Your task to perform on an android device: Set the phone to "Do not disturb". Image 0: 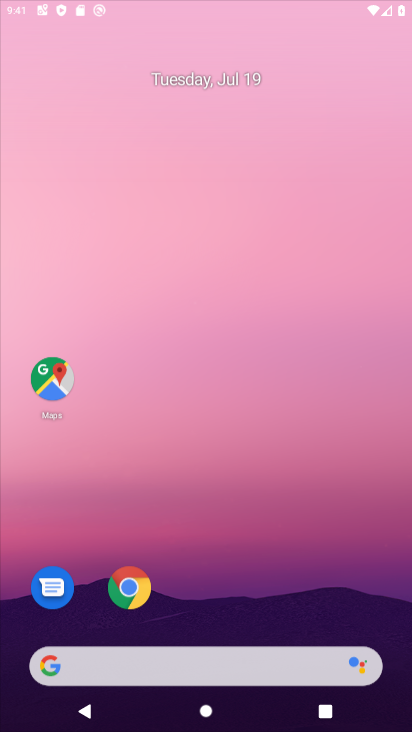
Step 0: press back button
Your task to perform on an android device: Set the phone to "Do not disturb". Image 1: 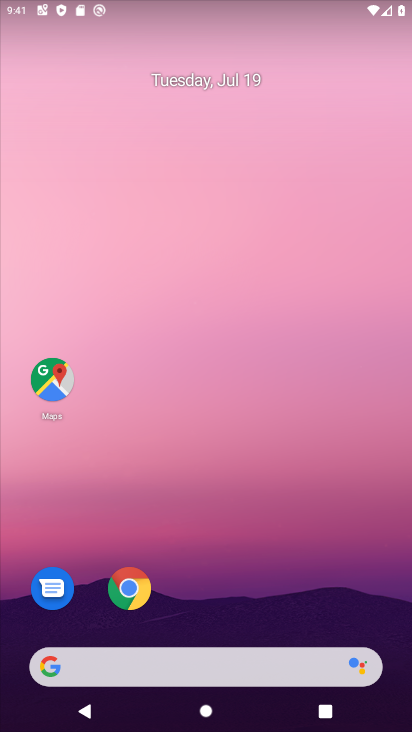
Step 1: drag from (228, 555) to (228, 145)
Your task to perform on an android device: Set the phone to "Do not disturb". Image 2: 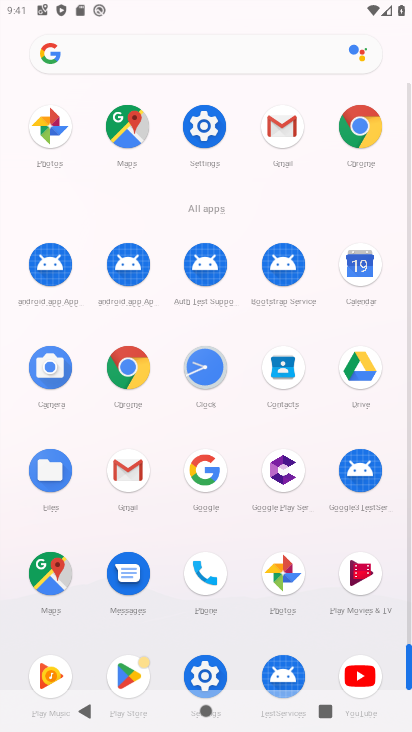
Step 2: click (200, 140)
Your task to perform on an android device: Set the phone to "Do not disturb". Image 3: 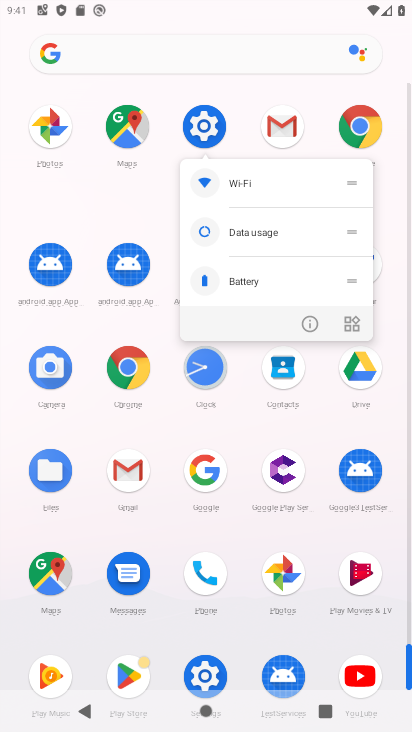
Step 3: click (196, 133)
Your task to perform on an android device: Set the phone to "Do not disturb". Image 4: 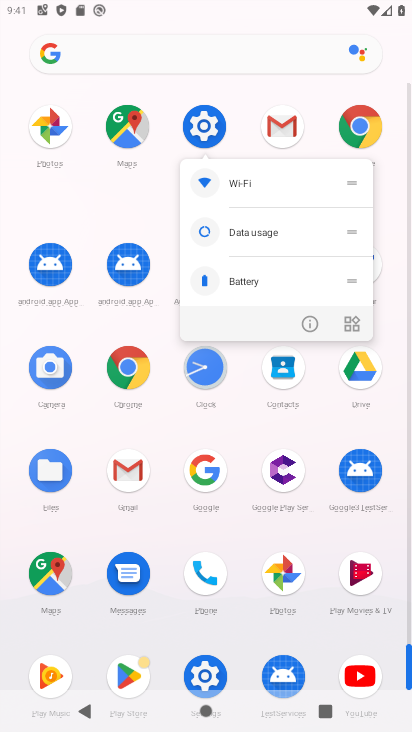
Step 4: click (215, 126)
Your task to perform on an android device: Set the phone to "Do not disturb". Image 5: 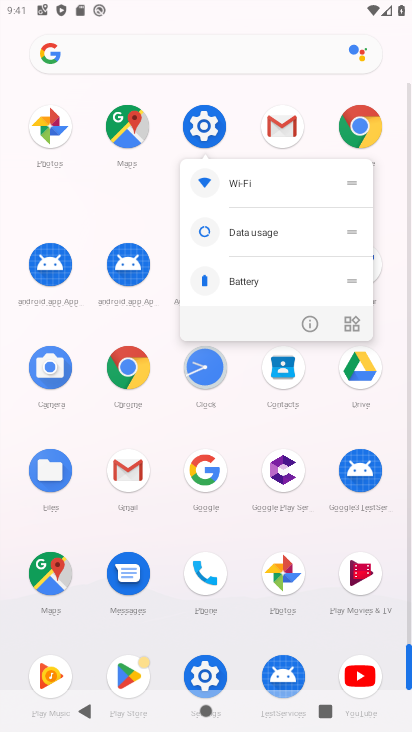
Step 5: click (216, 126)
Your task to perform on an android device: Set the phone to "Do not disturb". Image 6: 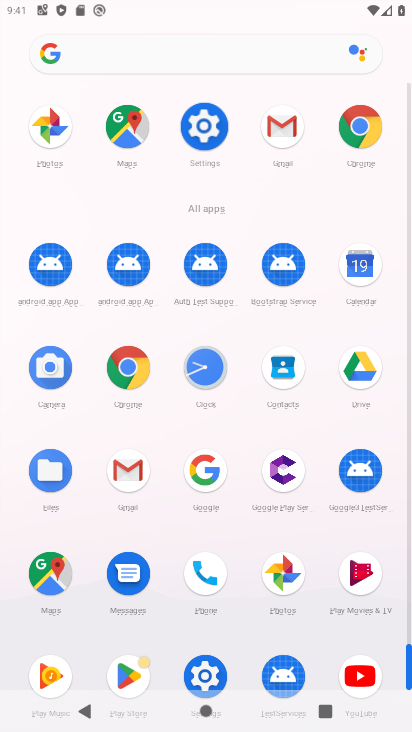
Step 6: click (216, 126)
Your task to perform on an android device: Set the phone to "Do not disturb". Image 7: 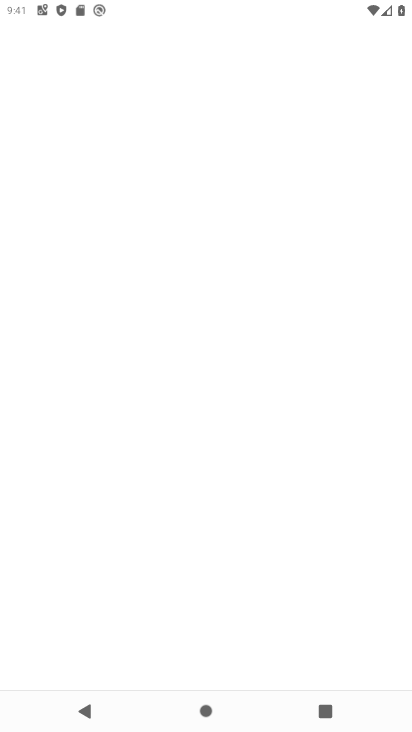
Step 7: click (213, 126)
Your task to perform on an android device: Set the phone to "Do not disturb". Image 8: 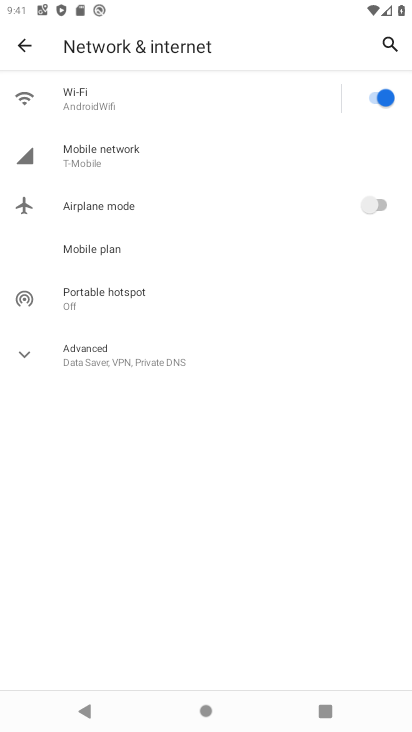
Step 8: click (16, 47)
Your task to perform on an android device: Set the phone to "Do not disturb". Image 9: 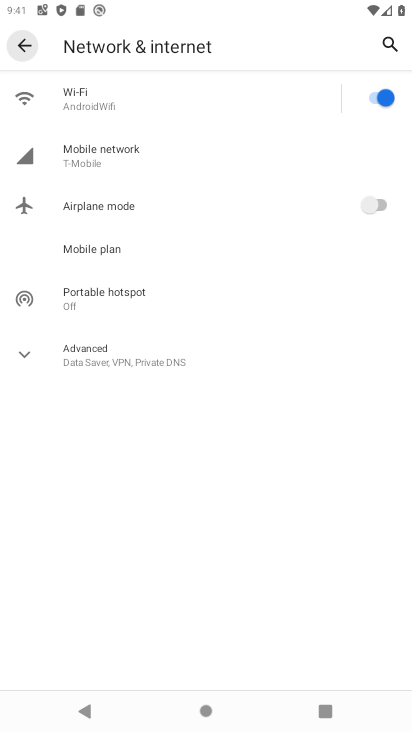
Step 9: click (22, 45)
Your task to perform on an android device: Set the phone to "Do not disturb". Image 10: 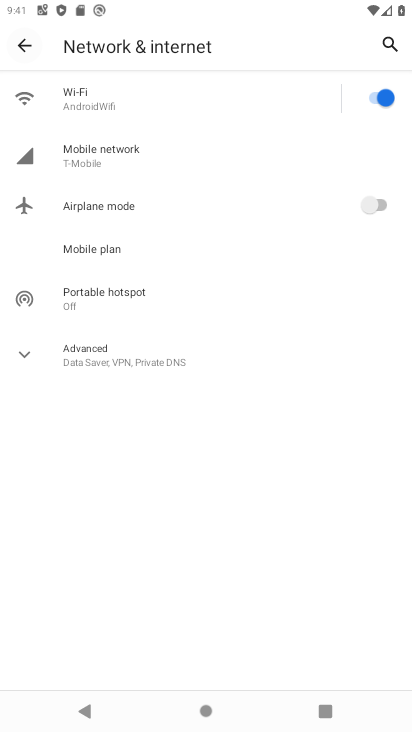
Step 10: click (23, 46)
Your task to perform on an android device: Set the phone to "Do not disturb". Image 11: 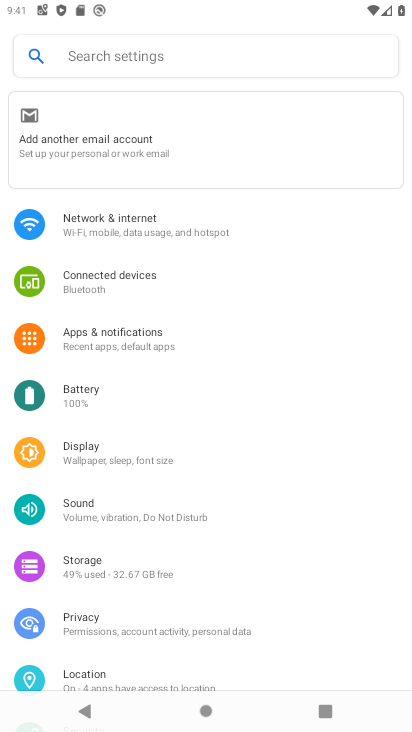
Step 11: click (85, 450)
Your task to perform on an android device: Set the phone to "Do not disturb". Image 12: 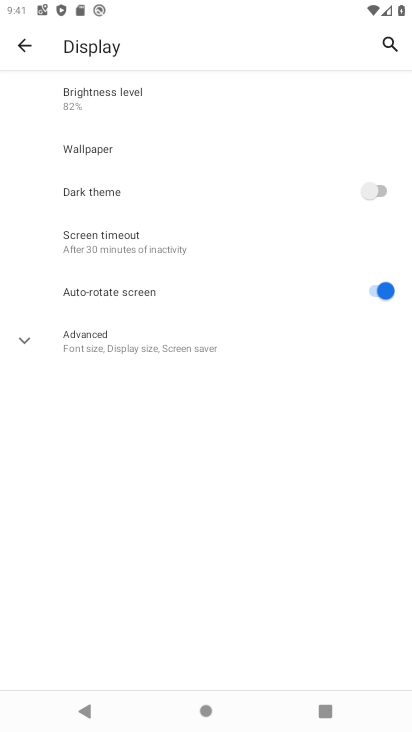
Step 12: click (101, 332)
Your task to perform on an android device: Set the phone to "Do not disturb". Image 13: 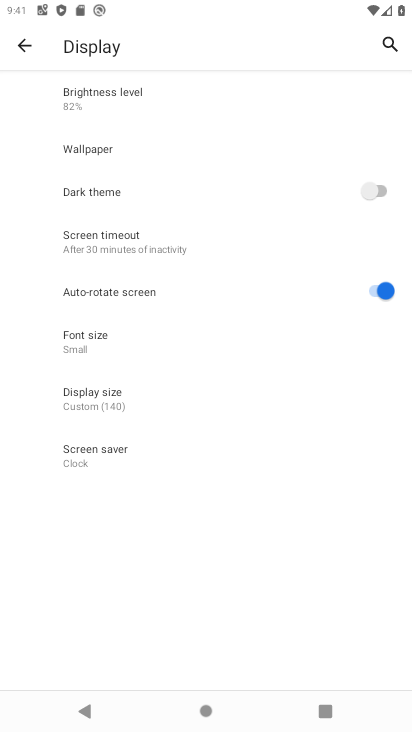
Step 13: click (81, 346)
Your task to perform on an android device: Set the phone to "Do not disturb". Image 14: 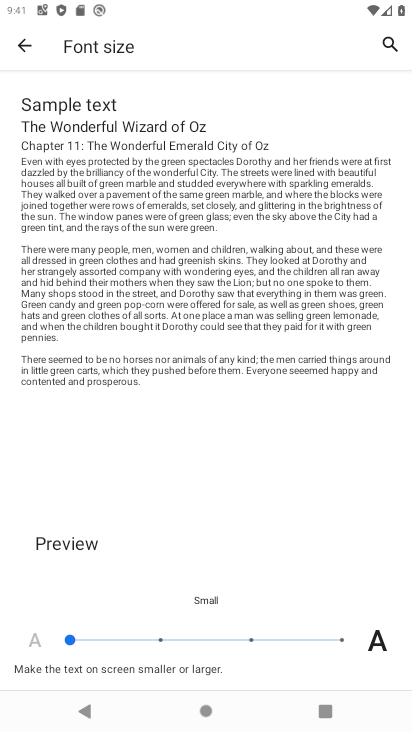
Step 14: click (331, 641)
Your task to perform on an android device: Set the phone to "Do not disturb". Image 15: 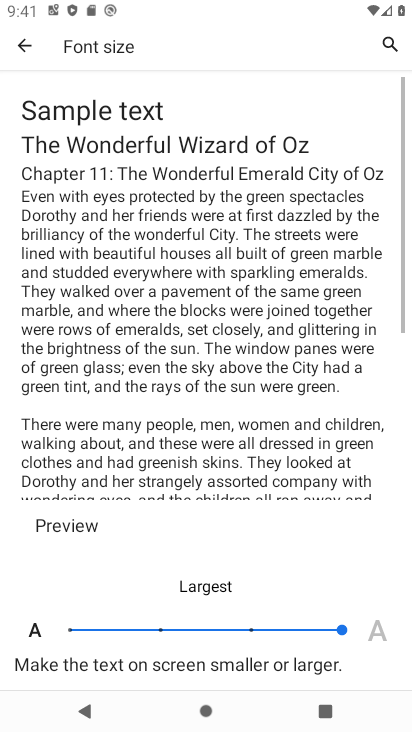
Step 15: click (28, 49)
Your task to perform on an android device: Set the phone to "Do not disturb". Image 16: 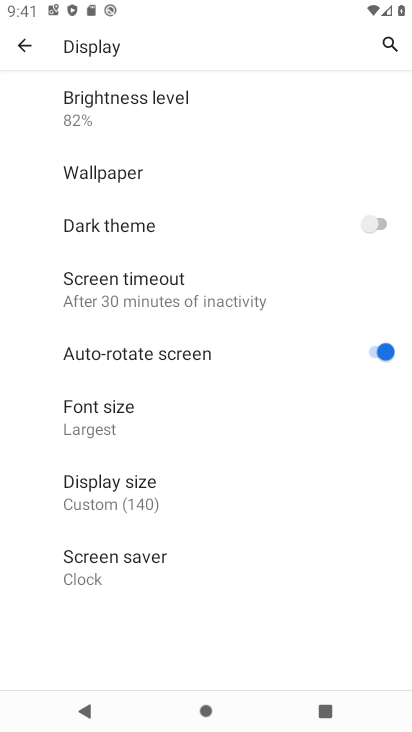
Step 16: click (16, 40)
Your task to perform on an android device: Set the phone to "Do not disturb". Image 17: 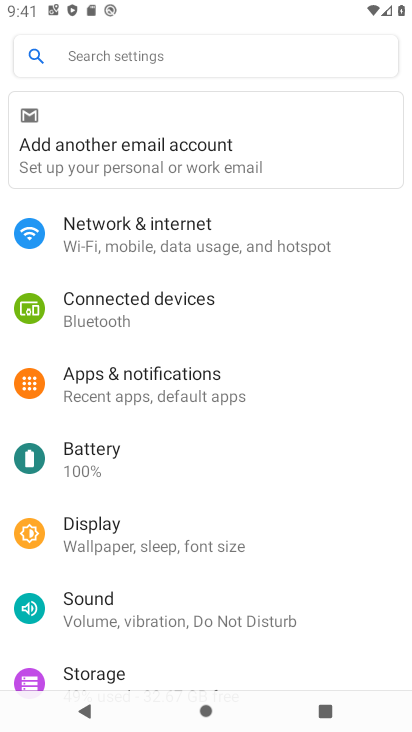
Step 17: click (136, 617)
Your task to perform on an android device: Set the phone to "Do not disturb". Image 18: 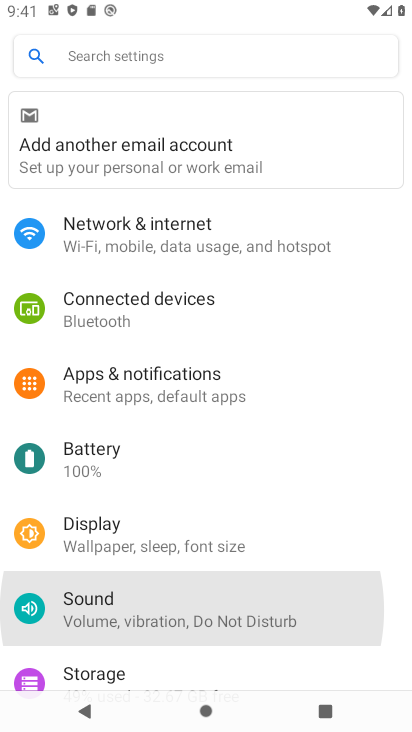
Step 18: click (137, 615)
Your task to perform on an android device: Set the phone to "Do not disturb". Image 19: 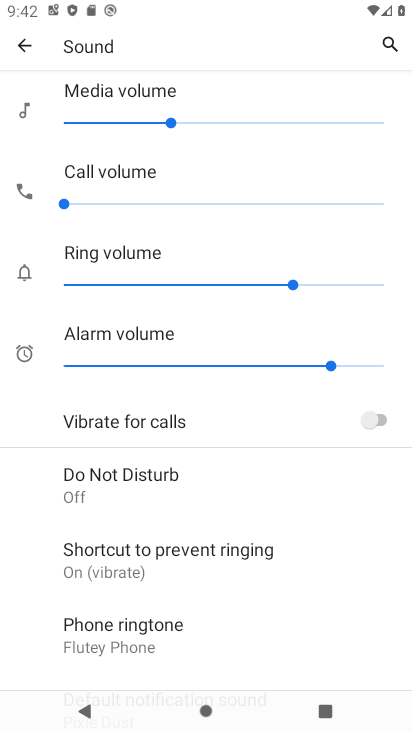
Step 19: click (98, 482)
Your task to perform on an android device: Set the phone to "Do not disturb". Image 20: 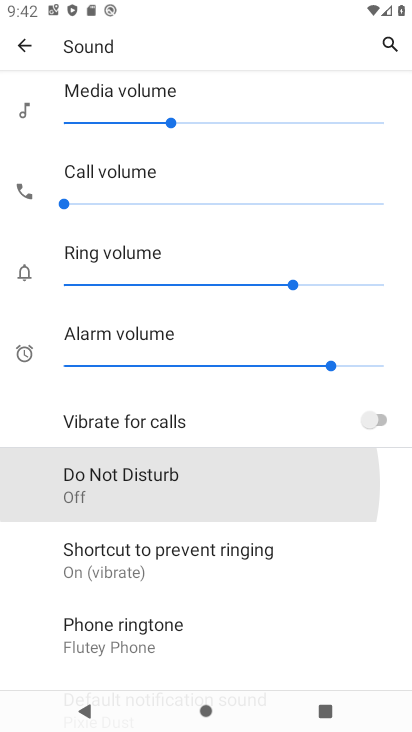
Step 20: click (100, 481)
Your task to perform on an android device: Set the phone to "Do not disturb". Image 21: 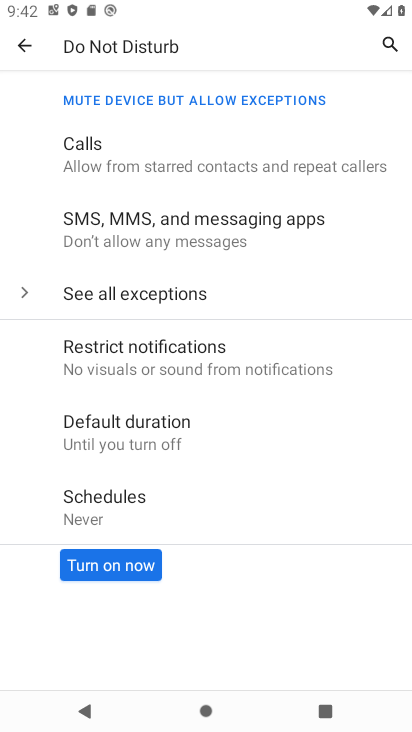
Step 21: click (111, 564)
Your task to perform on an android device: Set the phone to "Do not disturb". Image 22: 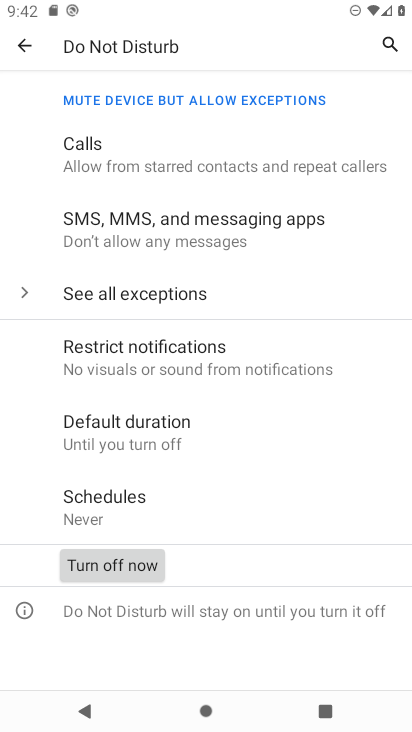
Step 22: task complete